Your task to perform on an android device: turn off javascript in the chrome app Image 0: 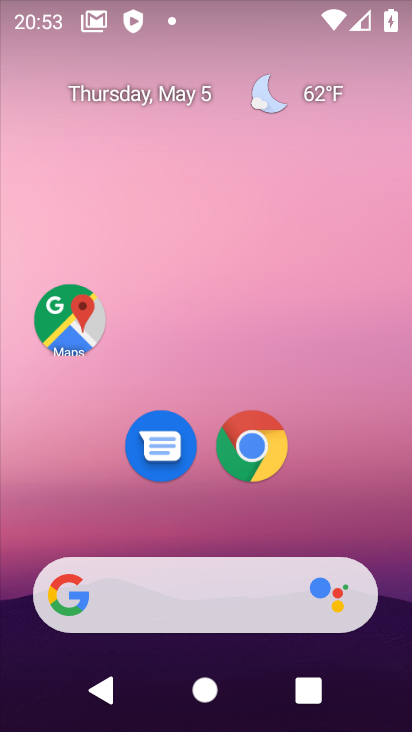
Step 0: drag from (239, 649) to (306, 286)
Your task to perform on an android device: turn off javascript in the chrome app Image 1: 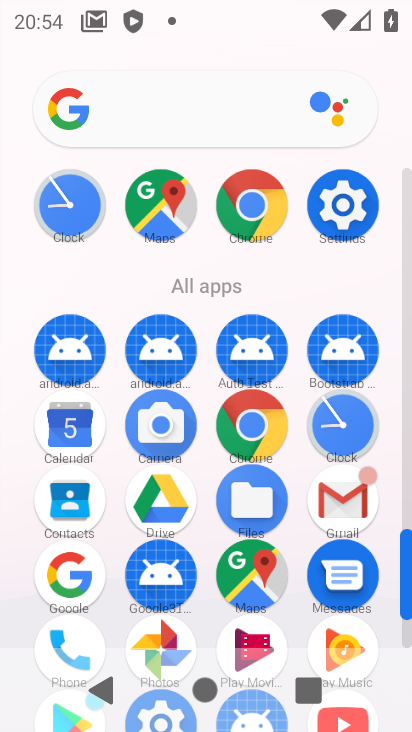
Step 1: click (247, 198)
Your task to perform on an android device: turn off javascript in the chrome app Image 2: 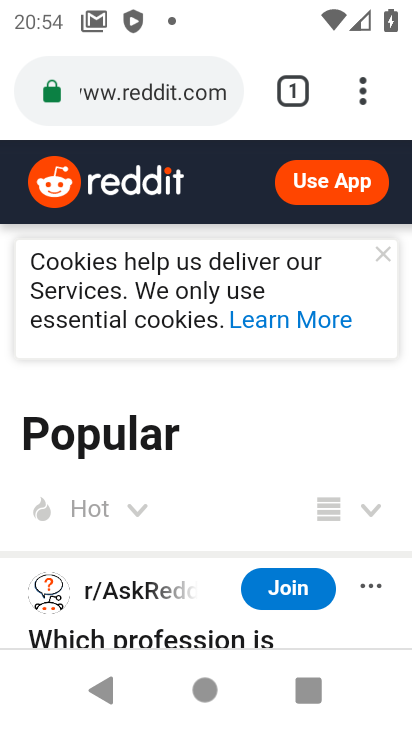
Step 2: click (298, 96)
Your task to perform on an android device: turn off javascript in the chrome app Image 3: 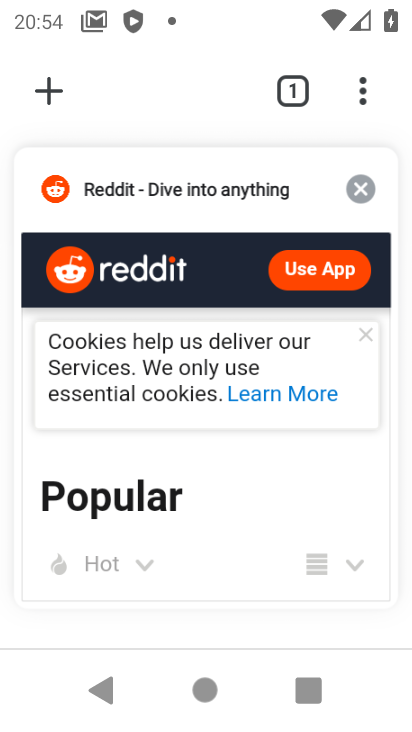
Step 3: click (59, 82)
Your task to perform on an android device: turn off javascript in the chrome app Image 4: 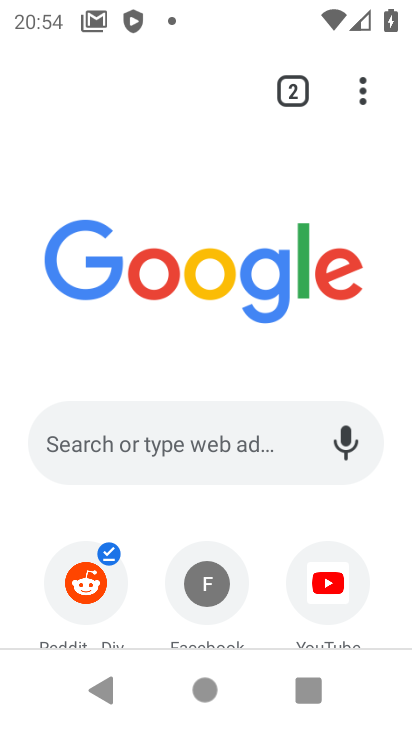
Step 4: click (366, 106)
Your task to perform on an android device: turn off javascript in the chrome app Image 5: 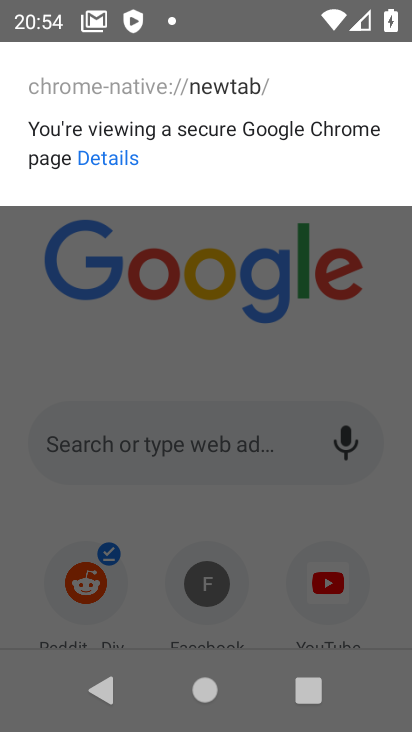
Step 5: click (201, 281)
Your task to perform on an android device: turn off javascript in the chrome app Image 6: 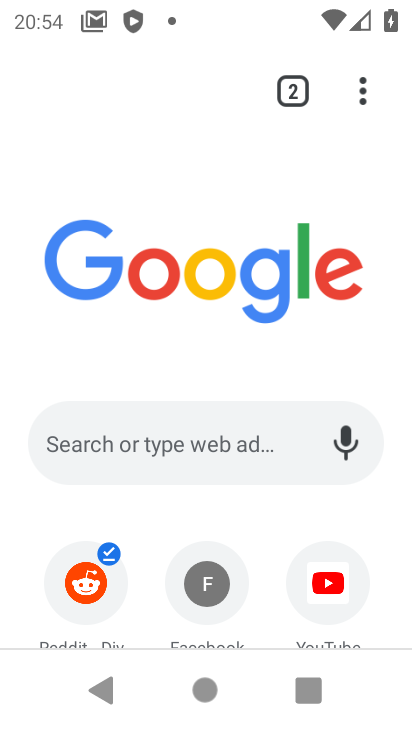
Step 6: click (360, 112)
Your task to perform on an android device: turn off javascript in the chrome app Image 7: 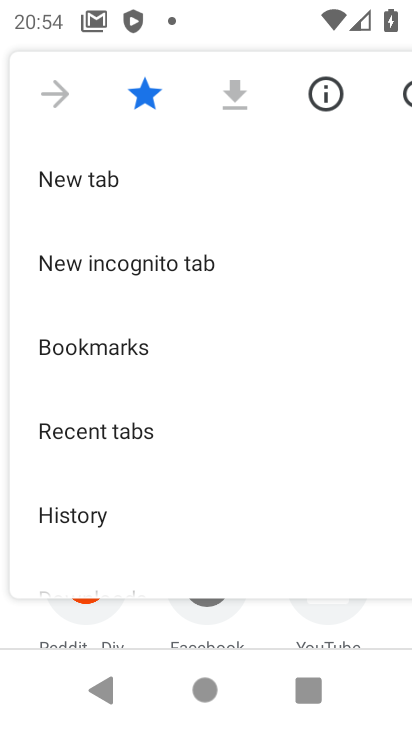
Step 7: drag from (138, 467) to (78, 324)
Your task to perform on an android device: turn off javascript in the chrome app Image 8: 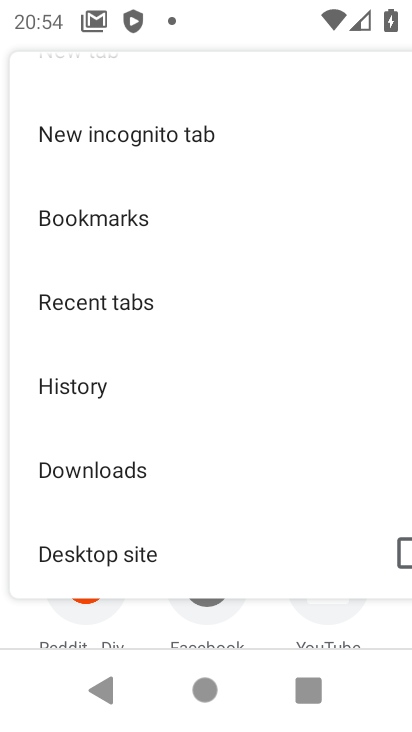
Step 8: drag from (128, 502) to (125, 339)
Your task to perform on an android device: turn off javascript in the chrome app Image 9: 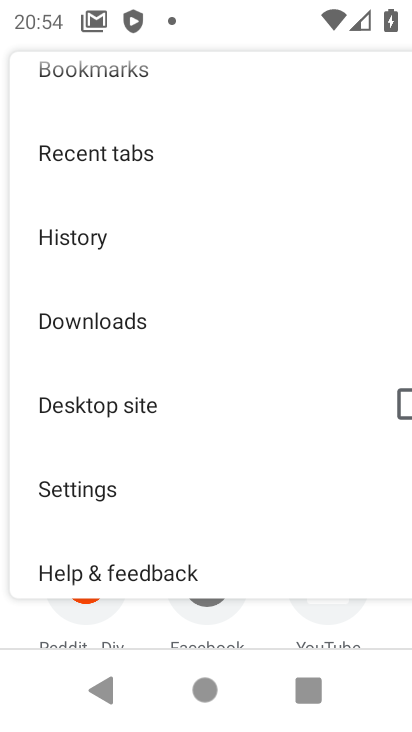
Step 9: click (149, 489)
Your task to perform on an android device: turn off javascript in the chrome app Image 10: 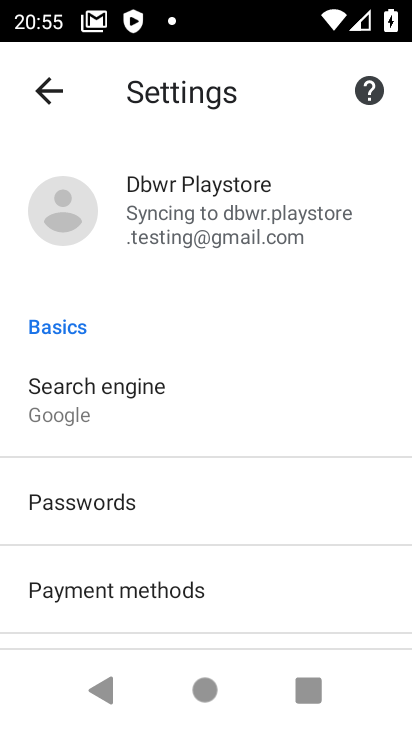
Step 10: drag from (156, 479) to (240, 307)
Your task to perform on an android device: turn off javascript in the chrome app Image 11: 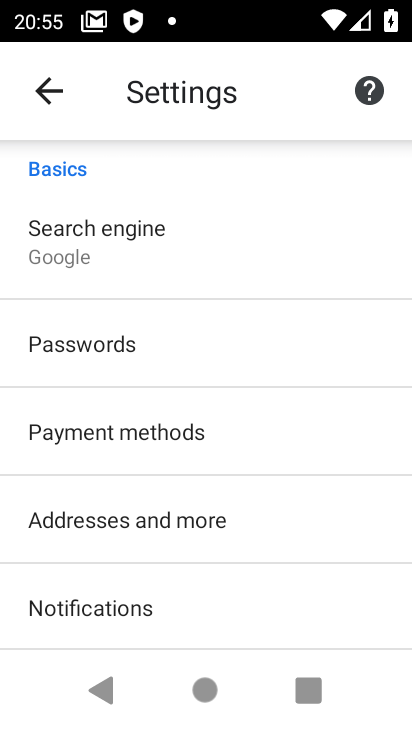
Step 11: drag from (187, 564) to (257, 439)
Your task to perform on an android device: turn off javascript in the chrome app Image 12: 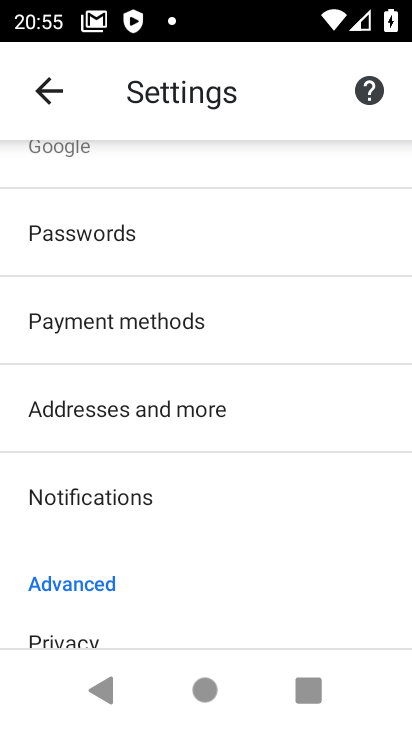
Step 12: drag from (177, 613) to (266, 408)
Your task to perform on an android device: turn off javascript in the chrome app Image 13: 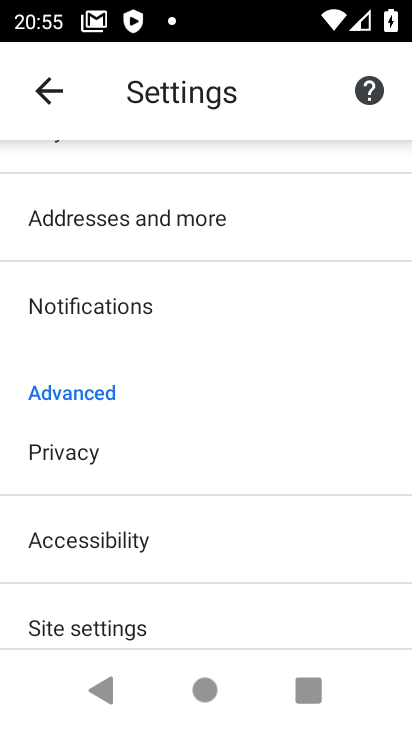
Step 13: drag from (200, 536) to (235, 409)
Your task to perform on an android device: turn off javascript in the chrome app Image 14: 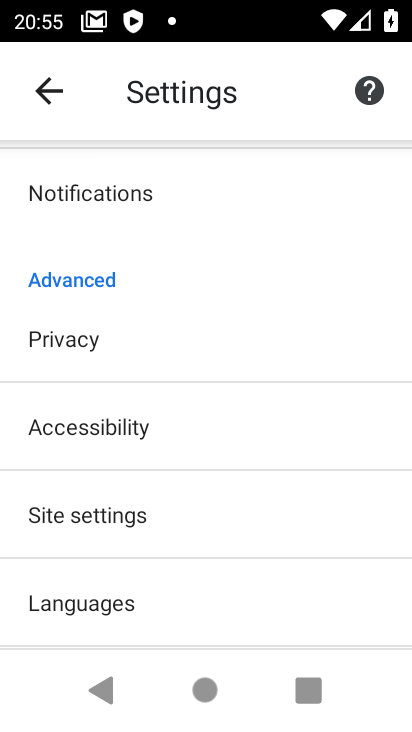
Step 14: click (143, 506)
Your task to perform on an android device: turn off javascript in the chrome app Image 15: 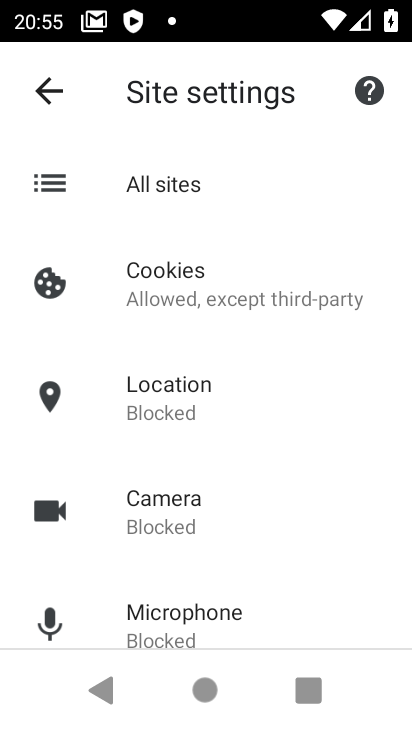
Step 15: drag from (123, 568) to (186, 347)
Your task to perform on an android device: turn off javascript in the chrome app Image 16: 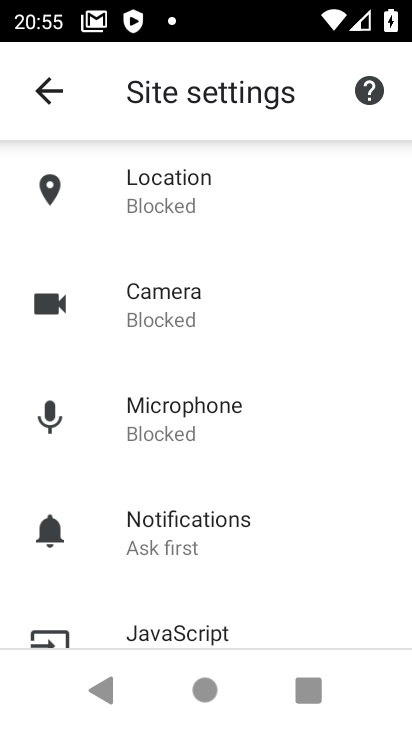
Step 16: click (182, 627)
Your task to perform on an android device: turn off javascript in the chrome app Image 17: 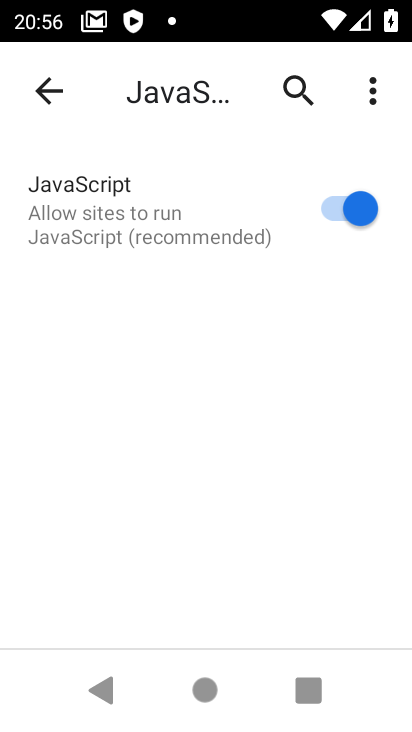
Step 17: click (284, 210)
Your task to perform on an android device: turn off javascript in the chrome app Image 18: 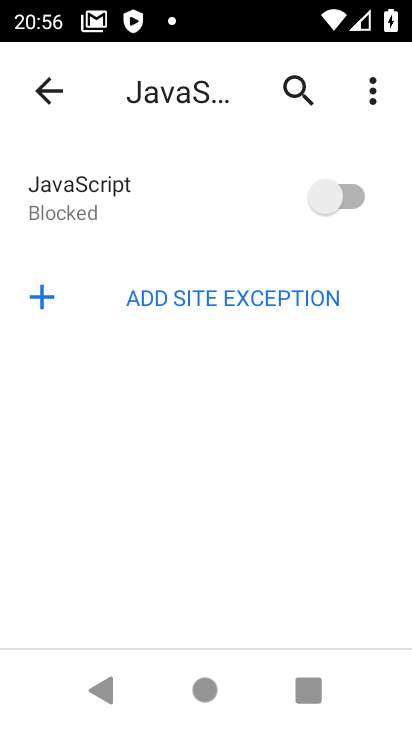
Step 18: task complete